Your task to perform on an android device: choose inbox layout in the gmail app Image 0: 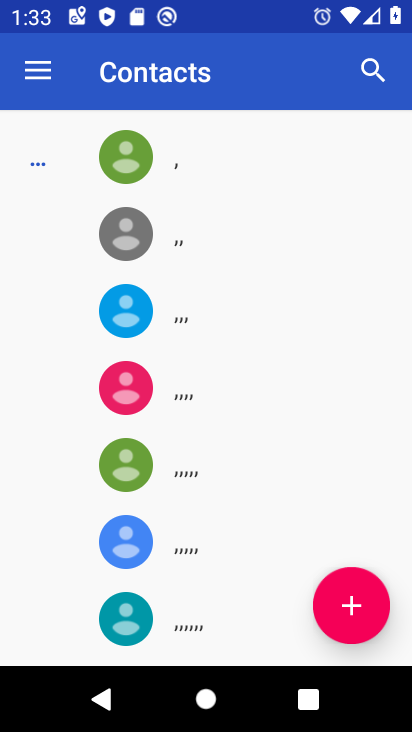
Step 0: press home button
Your task to perform on an android device: choose inbox layout in the gmail app Image 1: 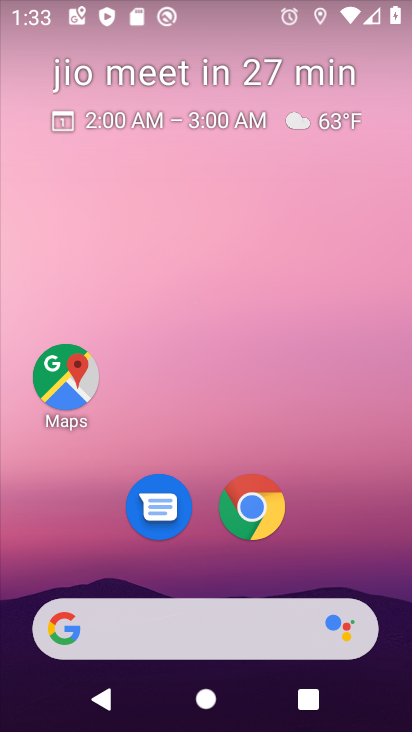
Step 1: drag from (303, 269) to (292, 0)
Your task to perform on an android device: choose inbox layout in the gmail app Image 2: 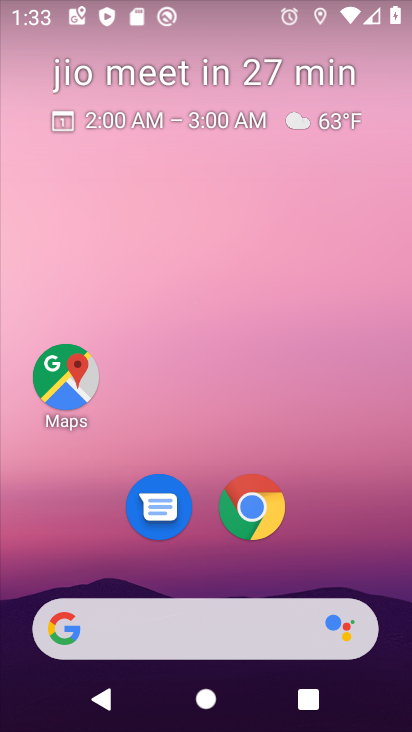
Step 2: drag from (300, 543) to (336, 0)
Your task to perform on an android device: choose inbox layout in the gmail app Image 3: 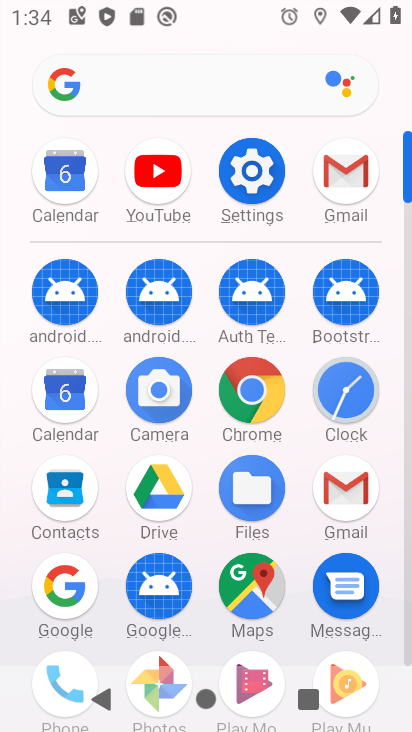
Step 3: click (350, 180)
Your task to perform on an android device: choose inbox layout in the gmail app Image 4: 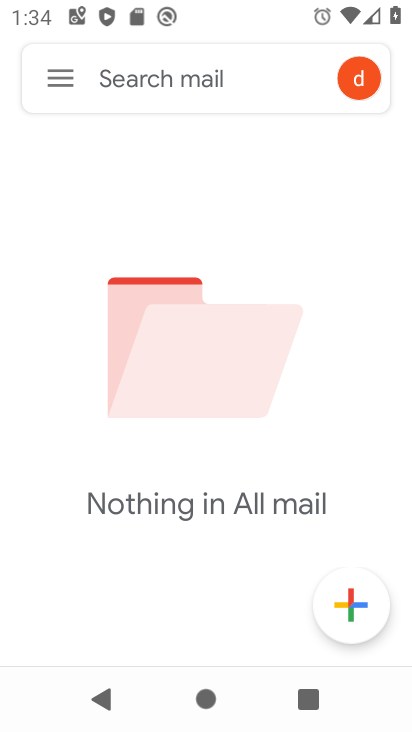
Step 4: click (65, 80)
Your task to perform on an android device: choose inbox layout in the gmail app Image 5: 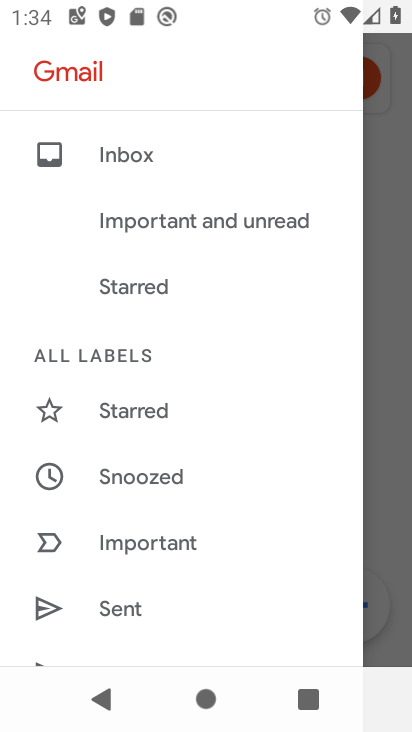
Step 5: drag from (183, 482) to (279, 31)
Your task to perform on an android device: choose inbox layout in the gmail app Image 6: 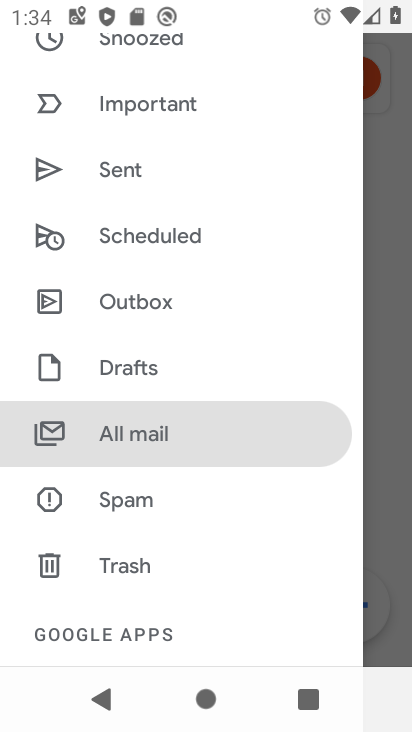
Step 6: drag from (218, 521) to (239, 70)
Your task to perform on an android device: choose inbox layout in the gmail app Image 7: 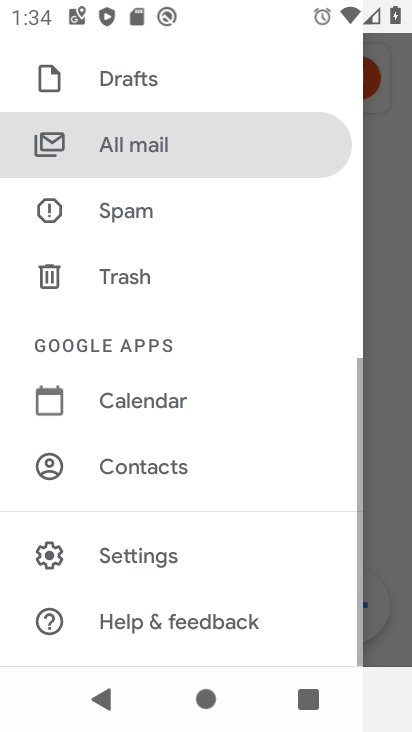
Step 7: click (148, 551)
Your task to perform on an android device: choose inbox layout in the gmail app Image 8: 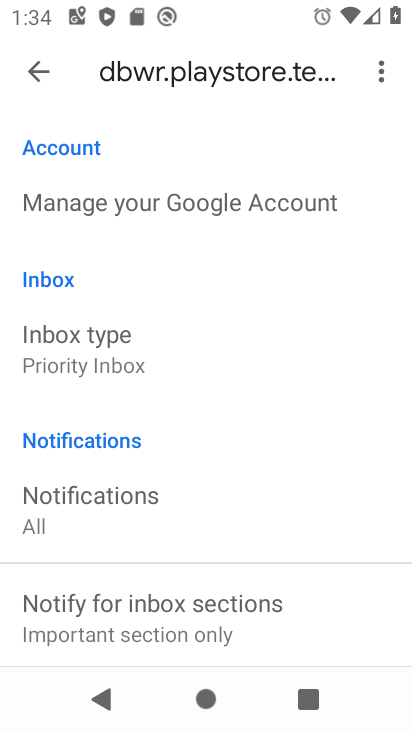
Step 8: click (127, 350)
Your task to perform on an android device: choose inbox layout in the gmail app Image 9: 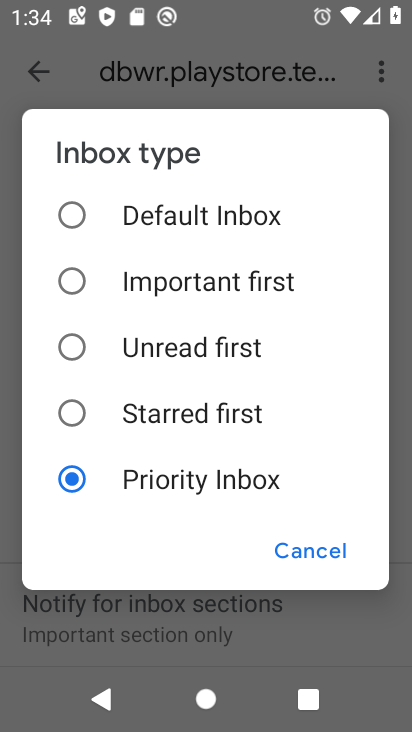
Step 9: click (73, 211)
Your task to perform on an android device: choose inbox layout in the gmail app Image 10: 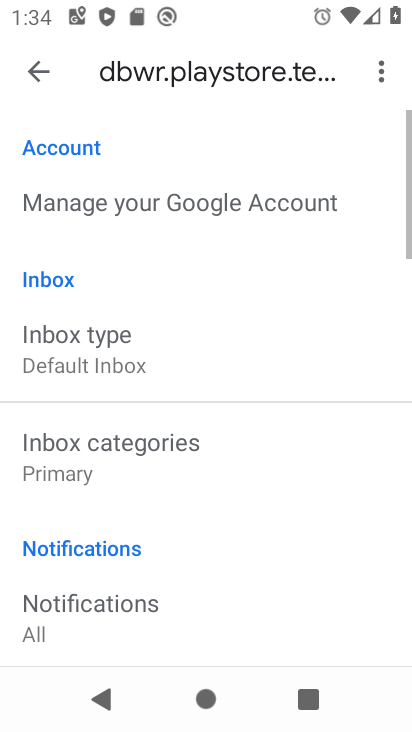
Step 10: task complete